Your task to perform on an android device: What's the weather going to be tomorrow? Image 0: 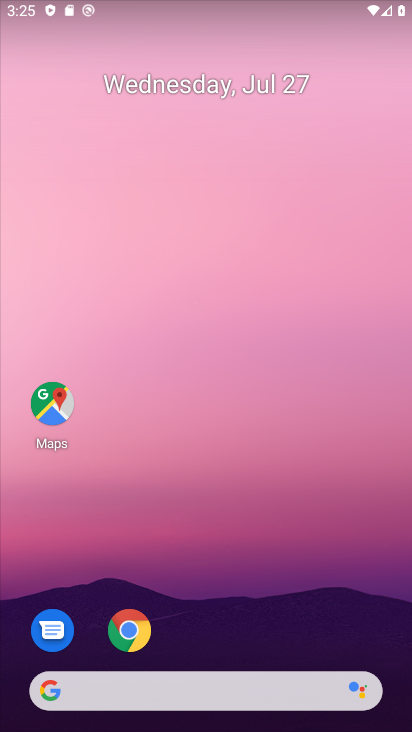
Step 0: click (185, 680)
Your task to perform on an android device: What's the weather going to be tomorrow? Image 1: 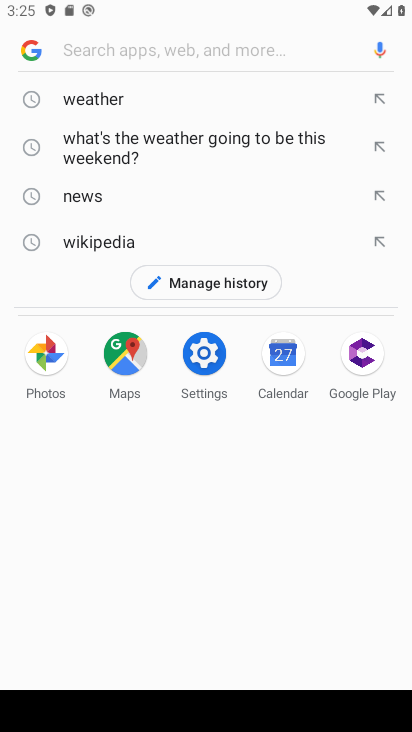
Step 1: click (106, 99)
Your task to perform on an android device: What's the weather going to be tomorrow? Image 2: 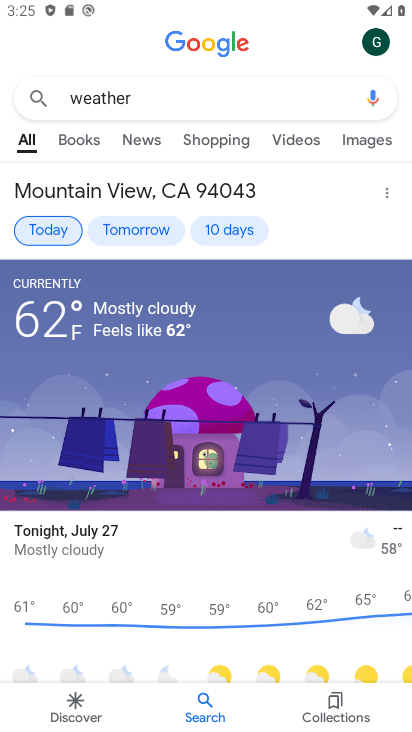
Step 2: click (135, 228)
Your task to perform on an android device: What's the weather going to be tomorrow? Image 3: 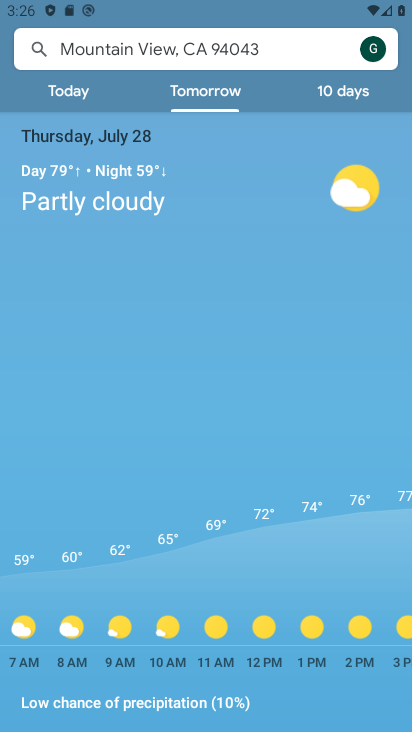
Step 3: drag from (396, 625) to (2, 675)
Your task to perform on an android device: What's the weather going to be tomorrow? Image 4: 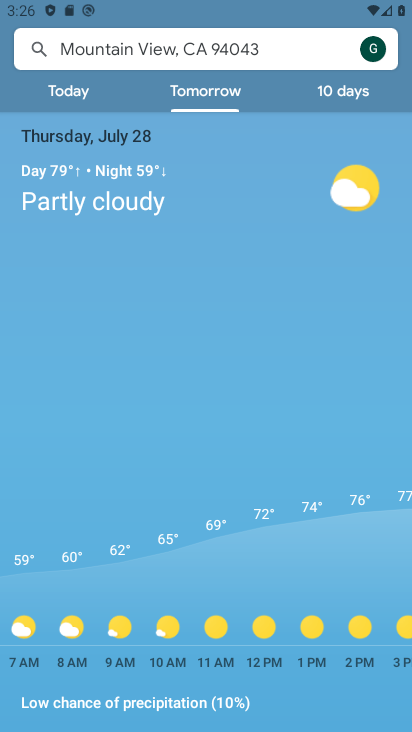
Step 4: drag from (375, 625) to (12, 623)
Your task to perform on an android device: What's the weather going to be tomorrow? Image 5: 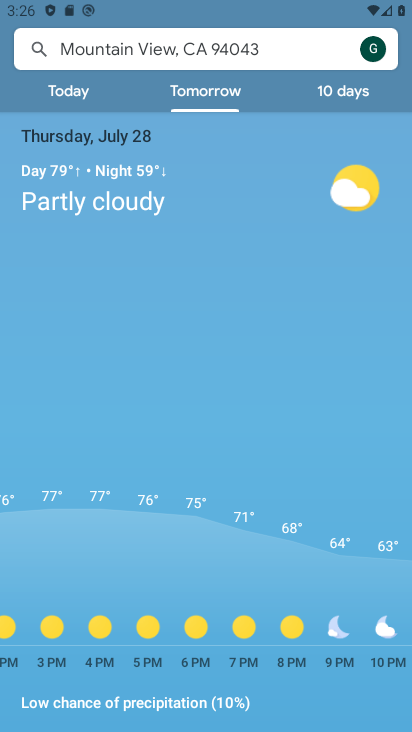
Step 5: drag from (387, 634) to (80, 628)
Your task to perform on an android device: What's the weather going to be tomorrow? Image 6: 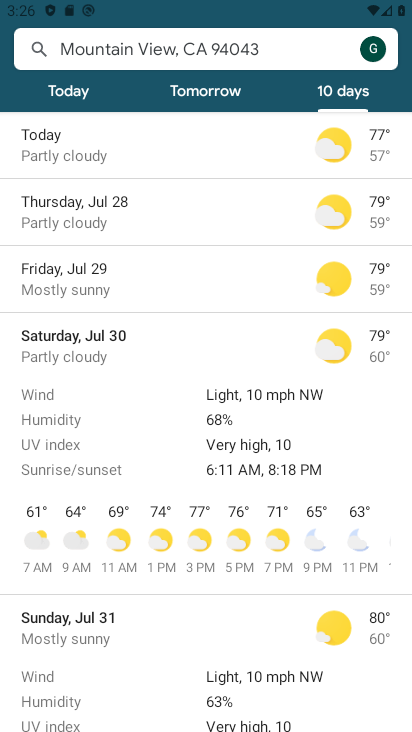
Step 6: click (186, 92)
Your task to perform on an android device: What's the weather going to be tomorrow? Image 7: 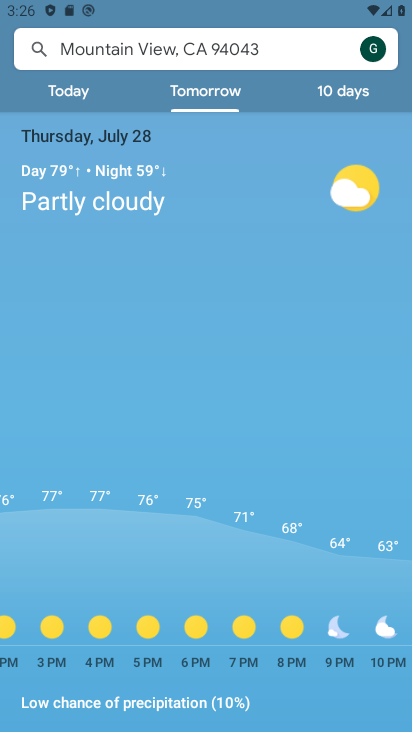
Step 7: task complete